Your task to perform on an android device: Open Google Chrome and click the shortcut for Amazon.com Image 0: 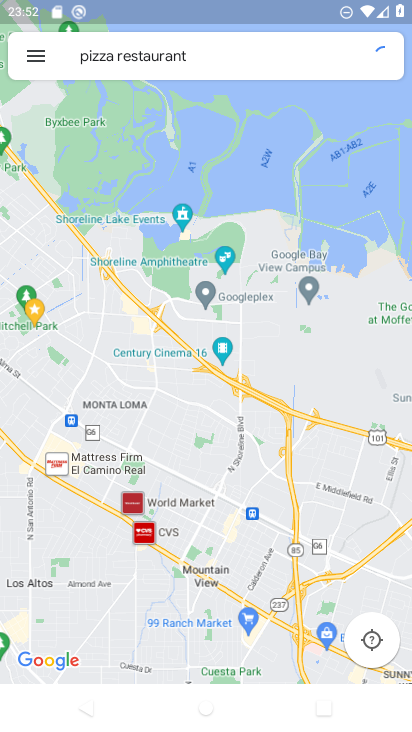
Step 0: press home button
Your task to perform on an android device: Open Google Chrome and click the shortcut for Amazon.com Image 1: 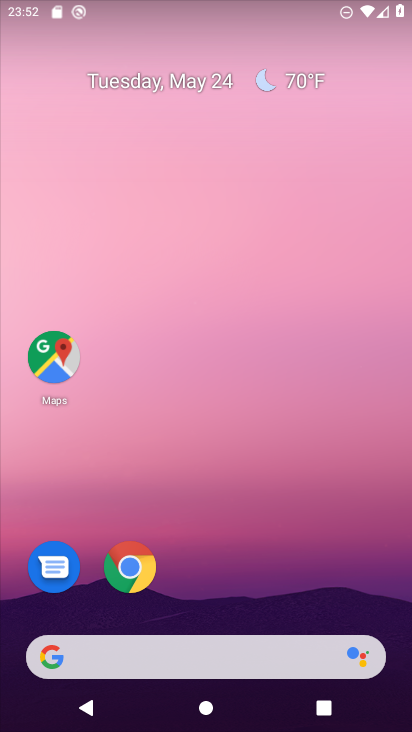
Step 1: click (129, 562)
Your task to perform on an android device: Open Google Chrome and click the shortcut for Amazon.com Image 2: 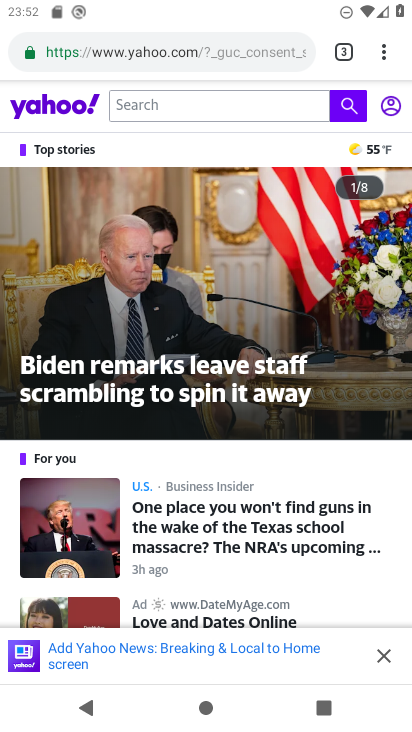
Step 2: click (338, 48)
Your task to perform on an android device: Open Google Chrome and click the shortcut for Amazon.com Image 3: 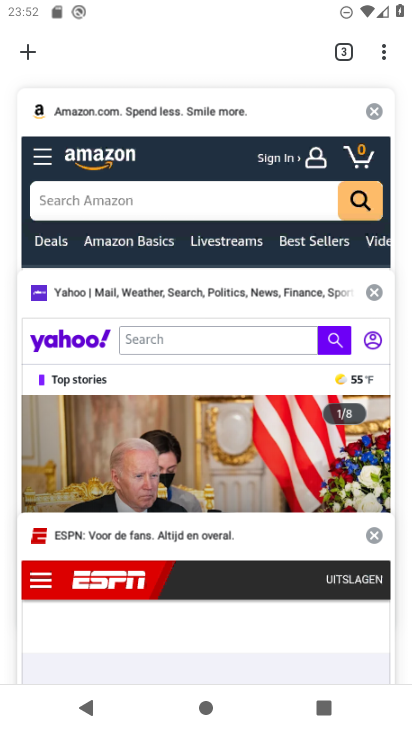
Step 3: click (114, 171)
Your task to perform on an android device: Open Google Chrome and click the shortcut for Amazon.com Image 4: 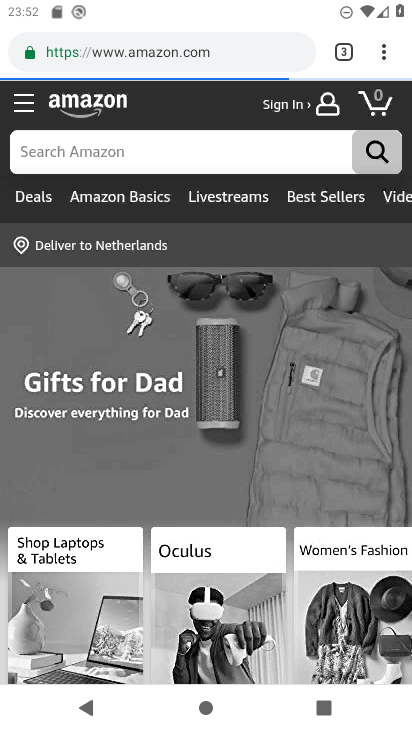
Step 4: task complete